Your task to perform on an android device: Open Amazon Image 0: 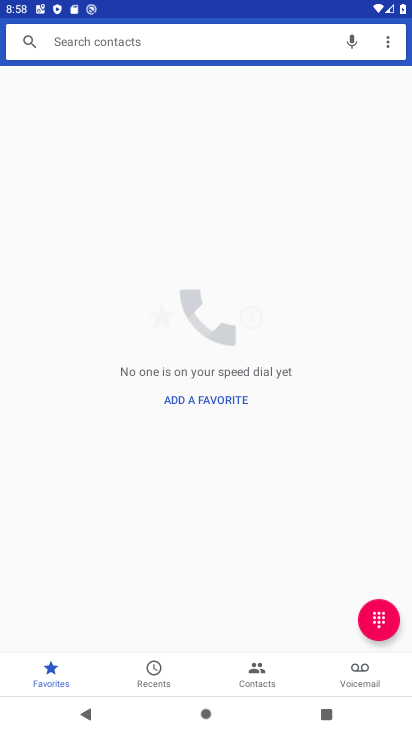
Step 0: press home button
Your task to perform on an android device: Open Amazon Image 1: 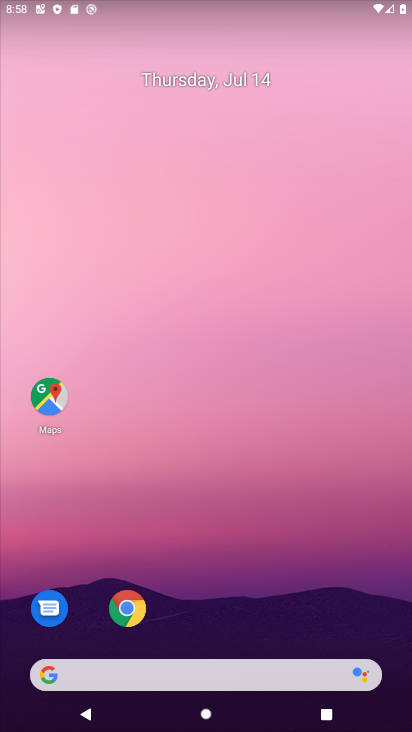
Step 1: click (137, 619)
Your task to perform on an android device: Open Amazon Image 2: 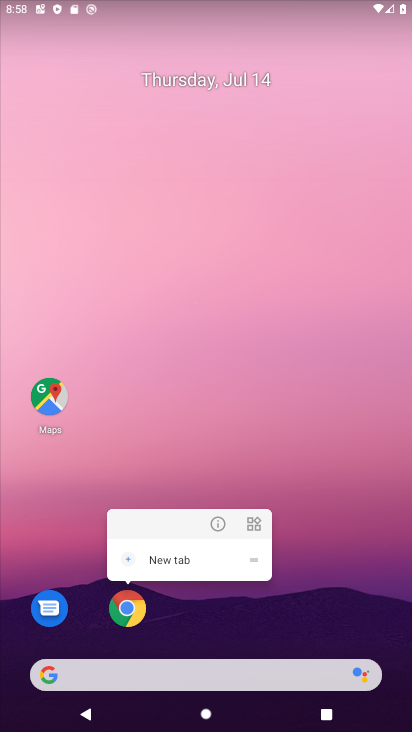
Step 2: click (134, 617)
Your task to perform on an android device: Open Amazon Image 3: 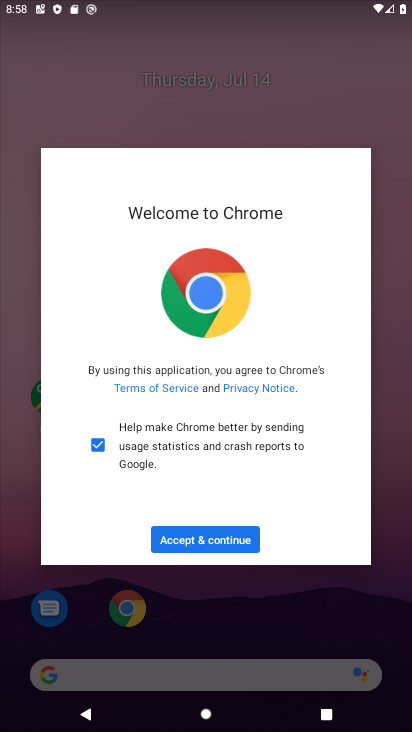
Step 3: click (237, 545)
Your task to perform on an android device: Open Amazon Image 4: 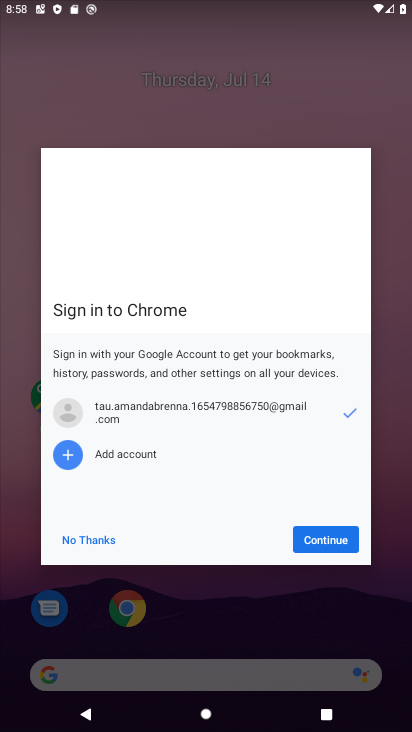
Step 4: click (333, 547)
Your task to perform on an android device: Open Amazon Image 5: 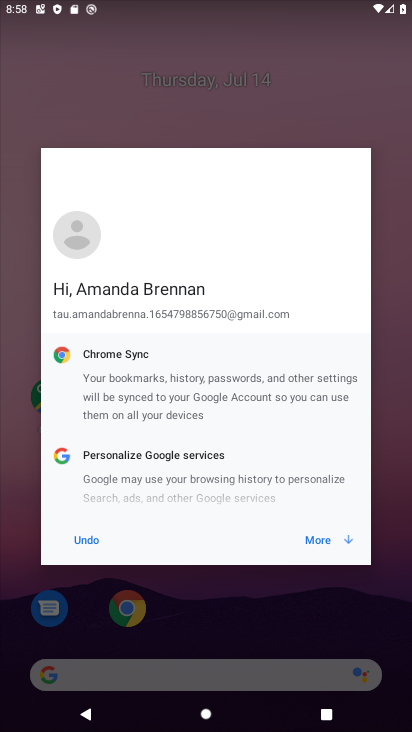
Step 5: click (332, 546)
Your task to perform on an android device: Open Amazon Image 6: 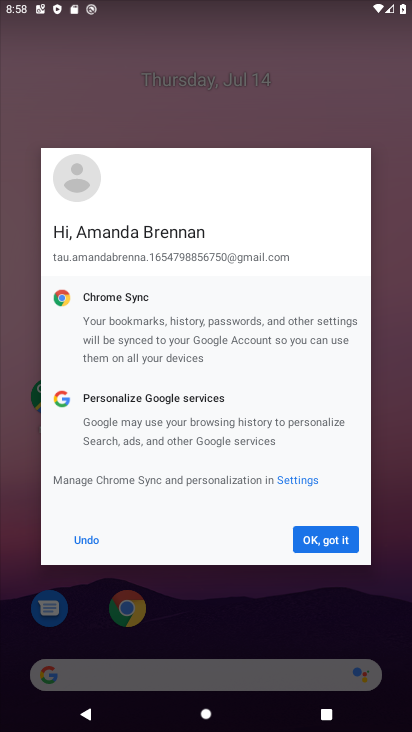
Step 6: click (332, 545)
Your task to perform on an android device: Open Amazon Image 7: 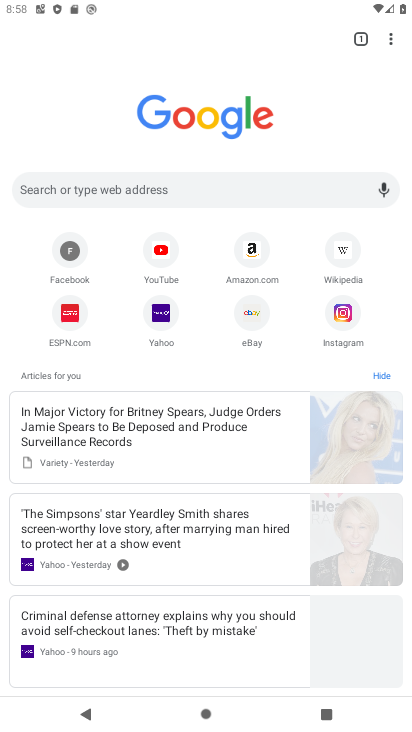
Step 7: click (245, 251)
Your task to perform on an android device: Open Amazon Image 8: 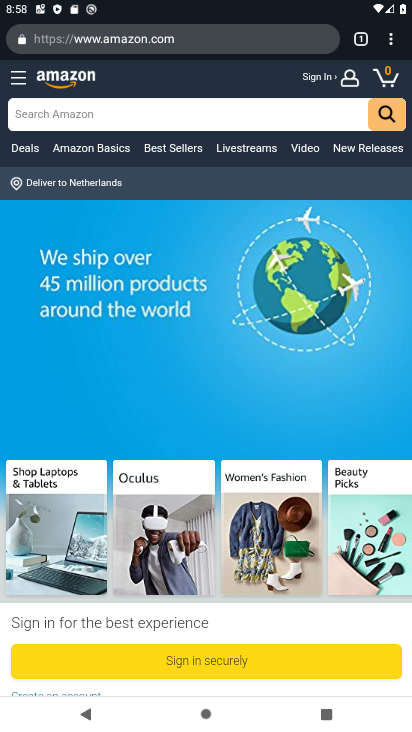
Step 8: task complete